Your task to perform on an android device: open app "PlayWell" (install if not already installed) Image 0: 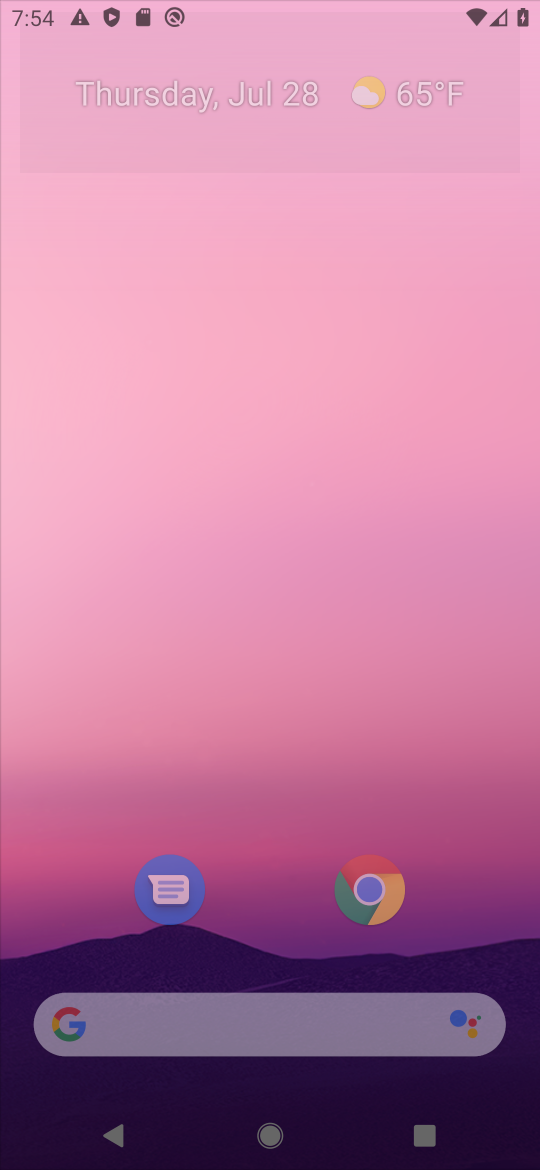
Step 0: press home button
Your task to perform on an android device: open app "PlayWell" (install if not already installed) Image 1: 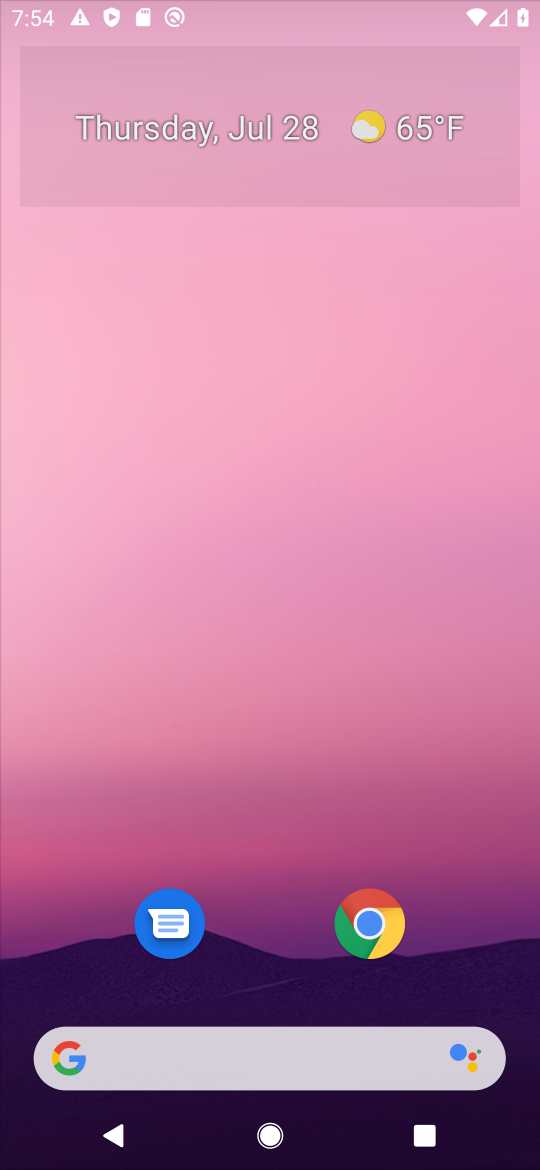
Step 1: drag from (498, 906) to (301, 220)
Your task to perform on an android device: open app "PlayWell" (install if not already installed) Image 2: 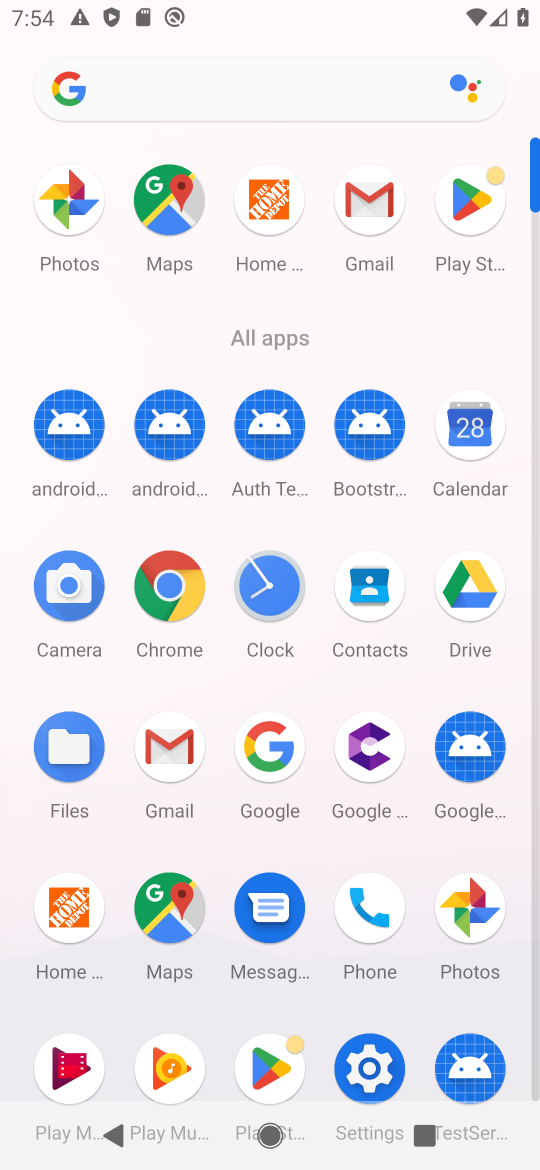
Step 2: click (457, 205)
Your task to perform on an android device: open app "PlayWell" (install if not already installed) Image 3: 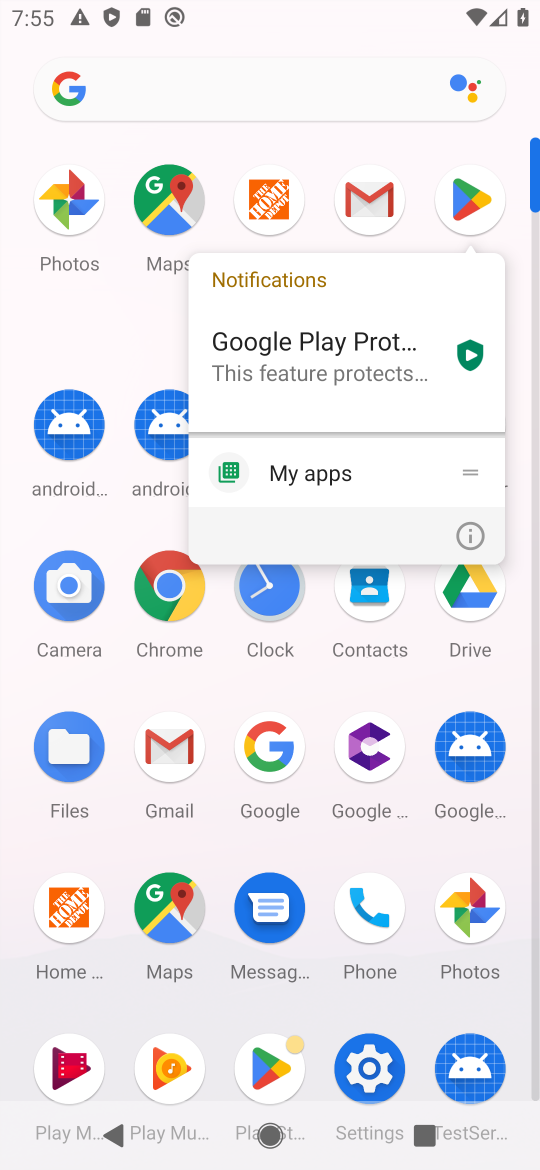
Step 3: click (469, 195)
Your task to perform on an android device: open app "PlayWell" (install if not already installed) Image 4: 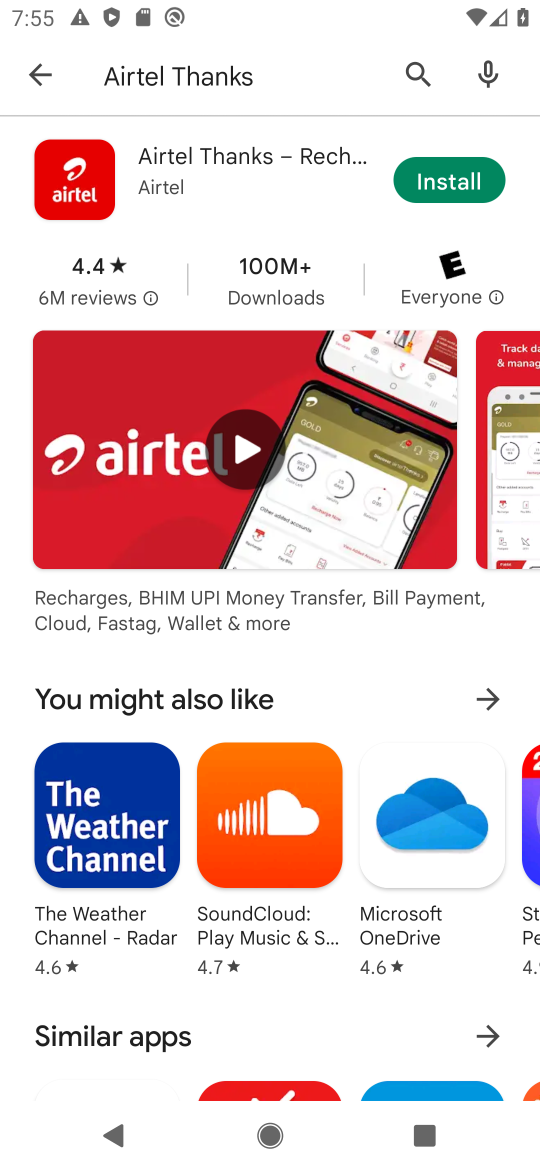
Step 4: click (326, 92)
Your task to perform on an android device: open app "PlayWell" (install if not already installed) Image 5: 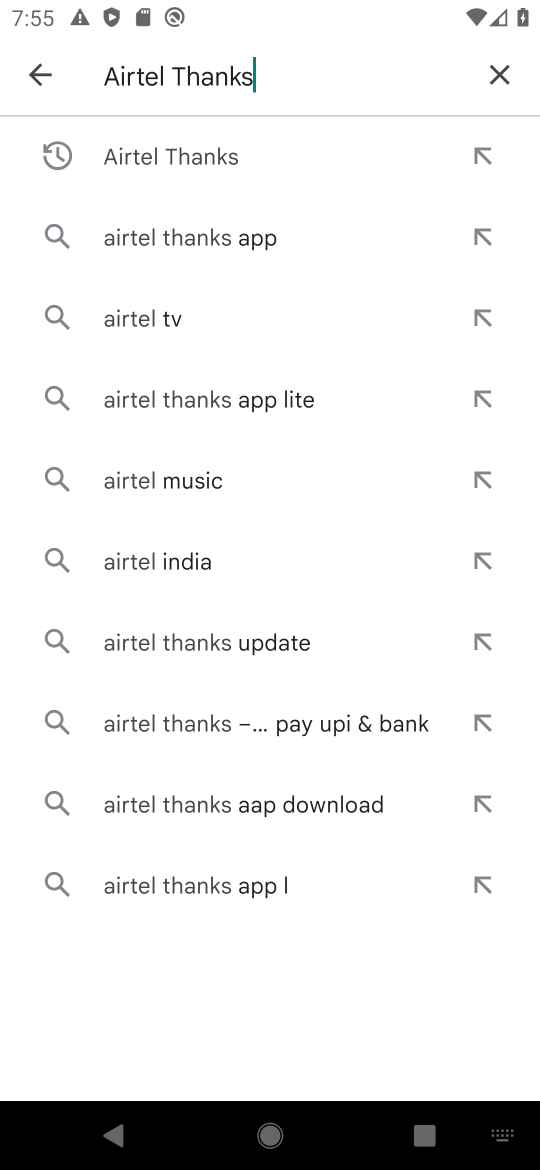
Step 5: click (495, 78)
Your task to perform on an android device: open app "PlayWell" (install if not already installed) Image 6: 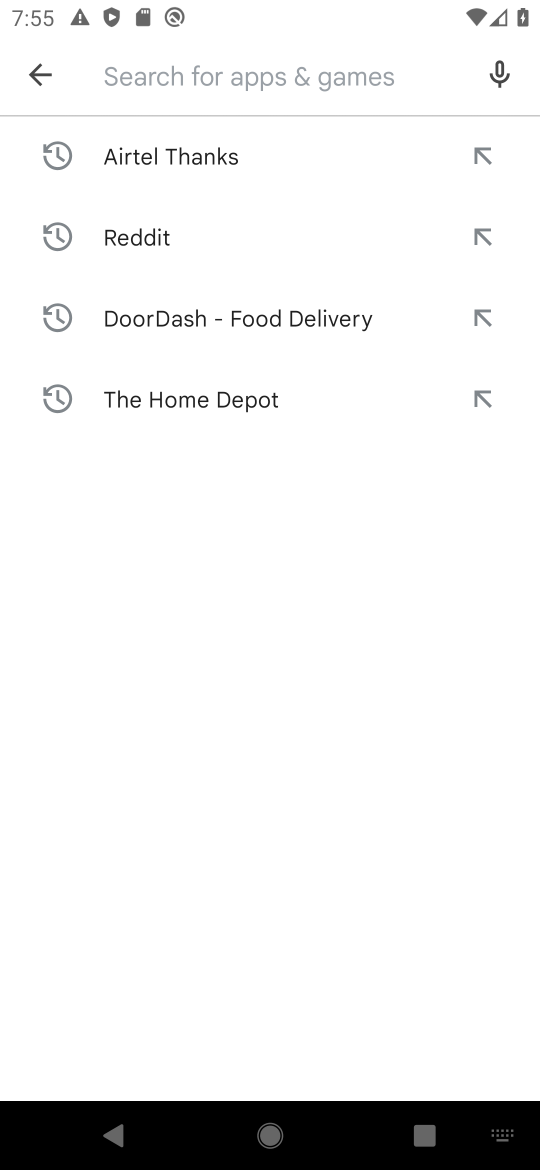
Step 6: type "PlayWell"
Your task to perform on an android device: open app "PlayWell" (install if not already installed) Image 7: 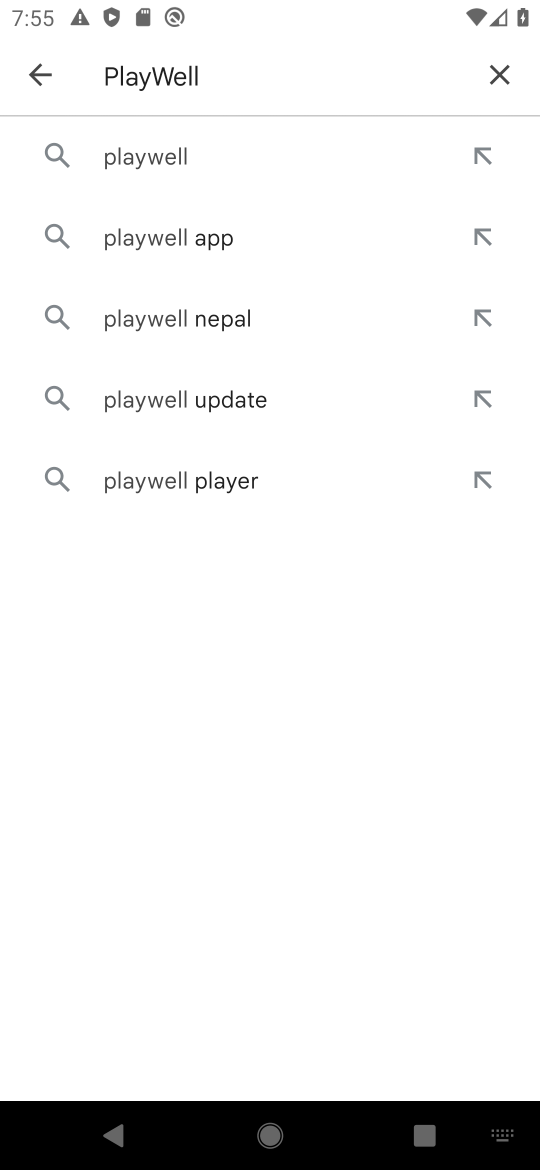
Step 7: press enter
Your task to perform on an android device: open app "PlayWell" (install if not already installed) Image 8: 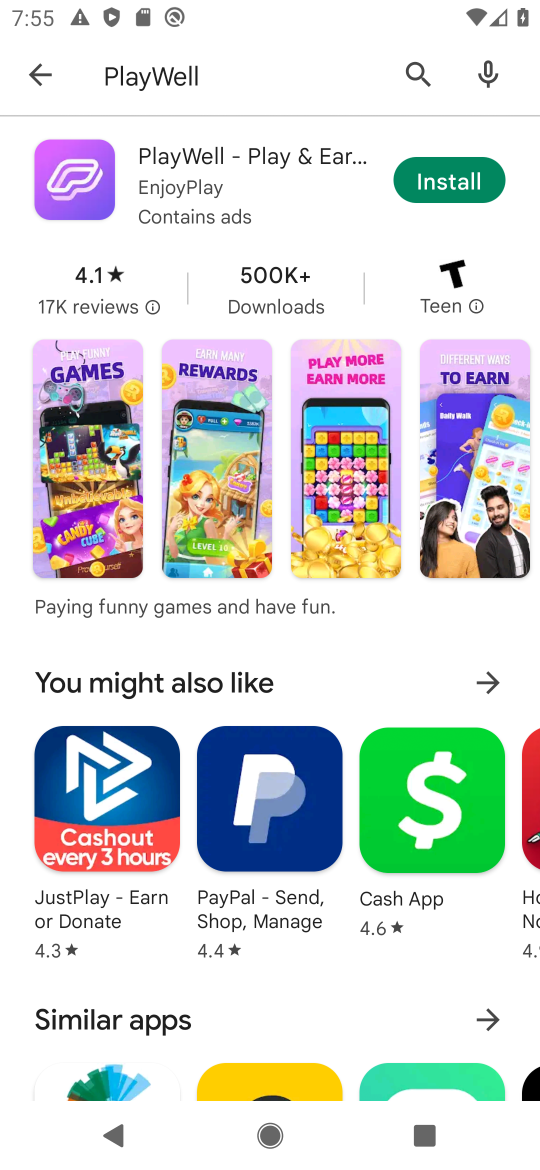
Step 8: click (211, 155)
Your task to perform on an android device: open app "PlayWell" (install if not already installed) Image 9: 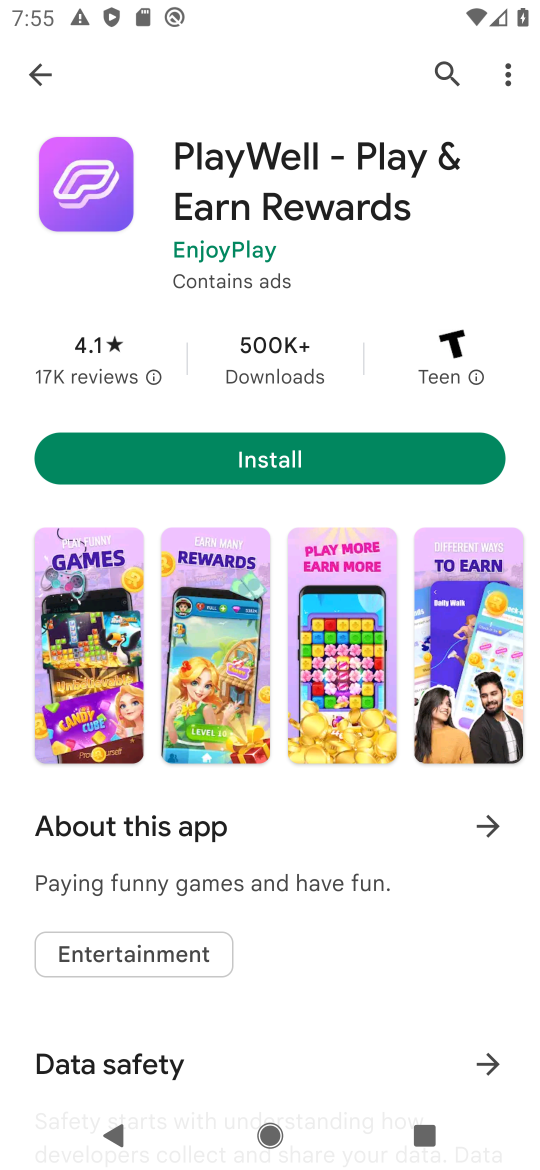
Step 9: click (356, 451)
Your task to perform on an android device: open app "PlayWell" (install if not already installed) Image 10: 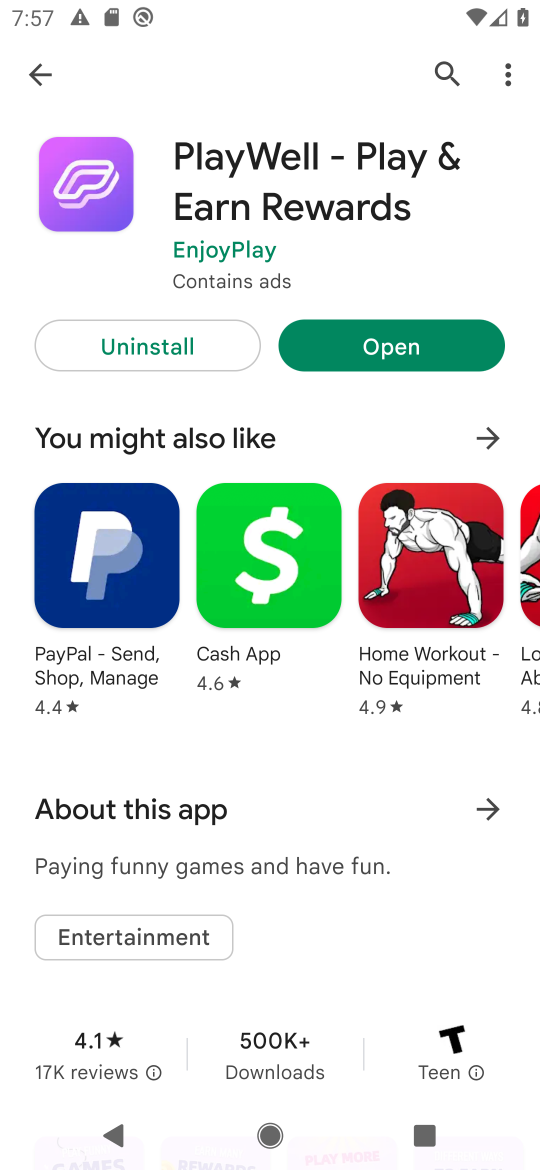
Step 10: click (473, 344)
Your task to perform on an android device: open app "PlayWell" (install if not already installed) Image 11: 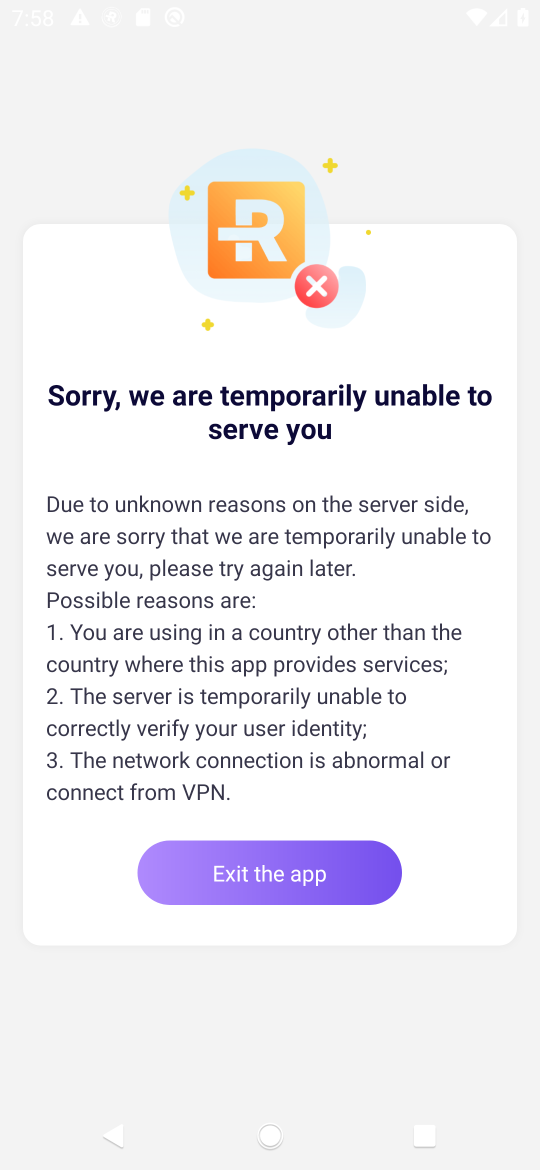
Step 11: task complete